Your task to perform on an android device: Go to Yahoo.com Image 0: 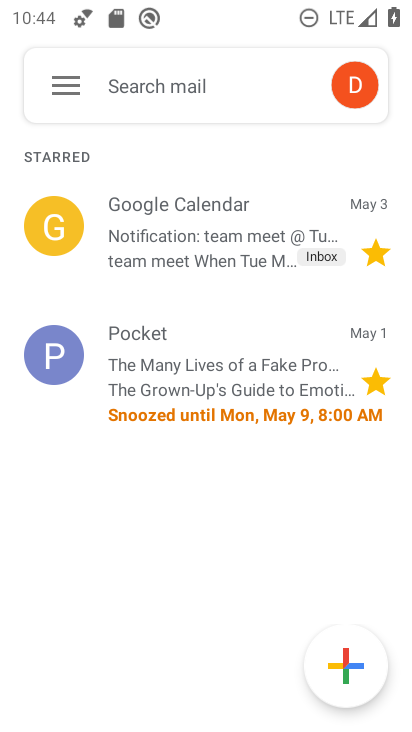
Step 0: press home button
Your task to perform on an android device: Go to Yahoo.com Image 1: 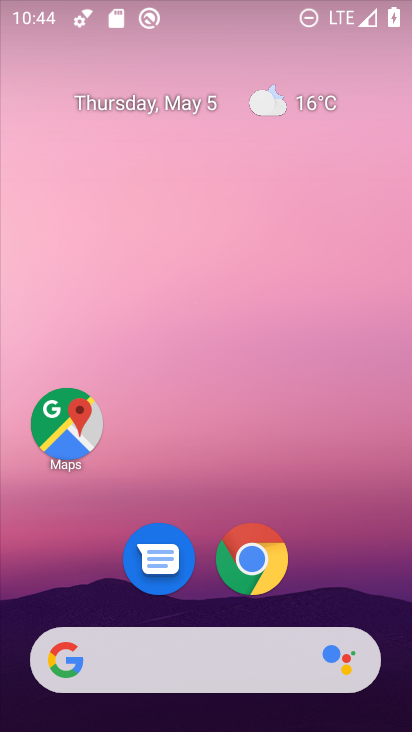
Step 1: drag from (380, 642) to (315, 123)
Your task to perform on an android device: Go to Yahoo.com Image 2: 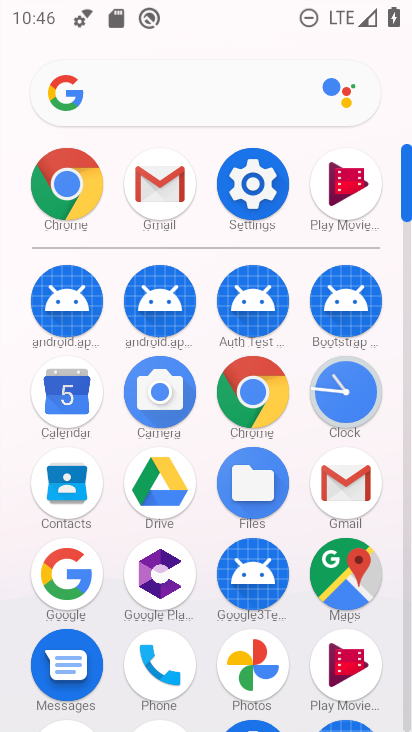
Step 2: click (252, 393)
Your task to perform on an android device: Go to Yahoo.com Image 3: 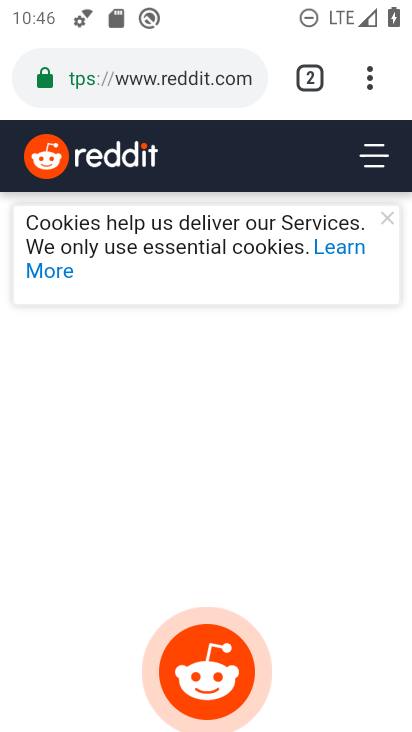
Step 3: press back button
Your task to perform on an android device: Go to Yahoo.com Image 4: 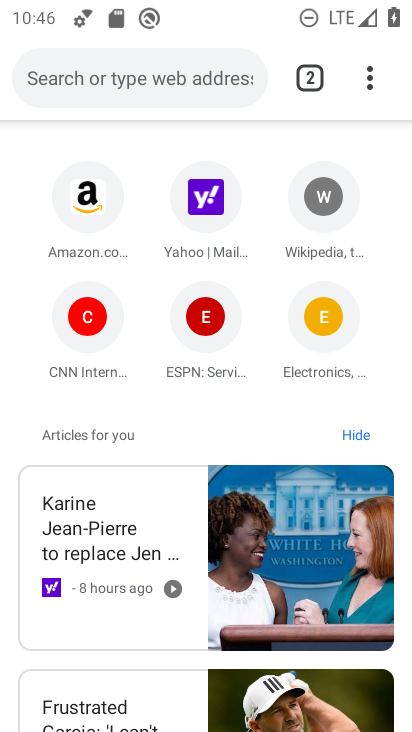
Step 4: click (211, 190)
Your task to perform on an android device: Go to Yahoo.com Image 5: 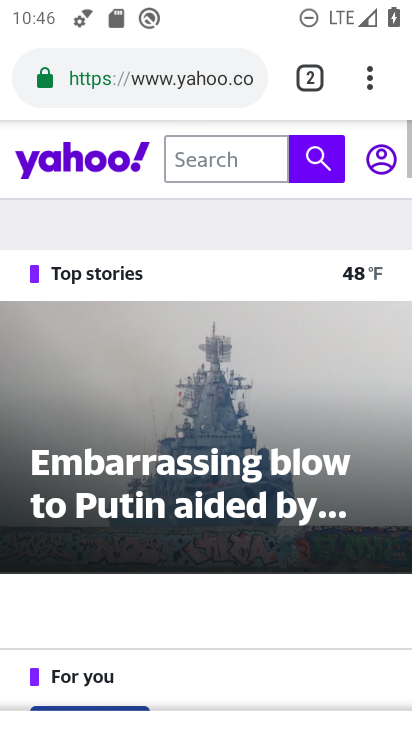
Step 5: task complete